Your task to perform on an android device: Open calendar and show me the third week of next month Image 0: 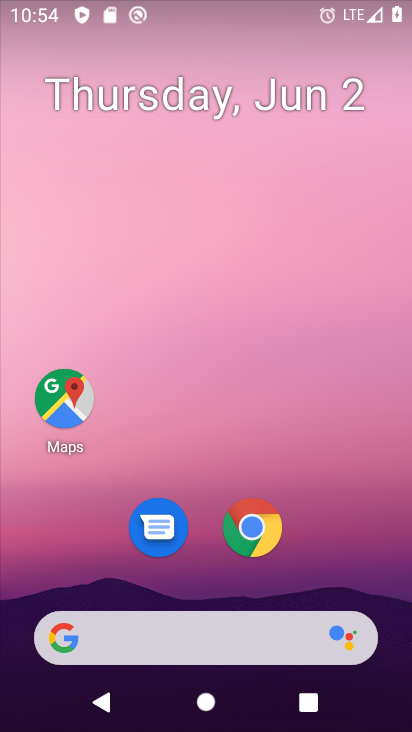
Step 0: drag from (196, 624) to (179, 44)
Your task to perform on an android device: Open calendar and show me the third week of next month Image 1: 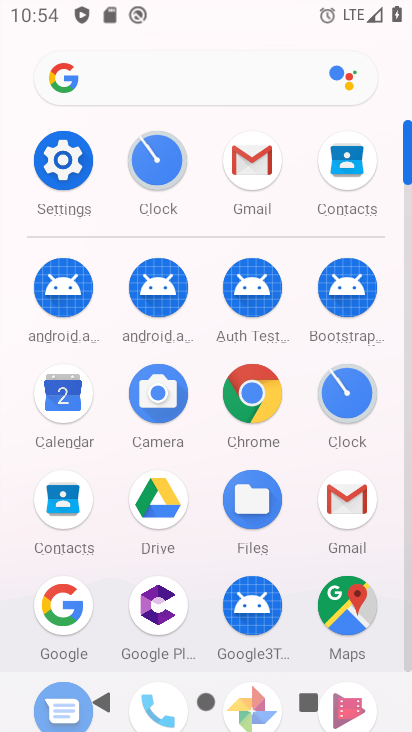
Step 1: click (54, 401)
Your task to perform on an android device: Open calendar and show me the third week of next month Image 2: 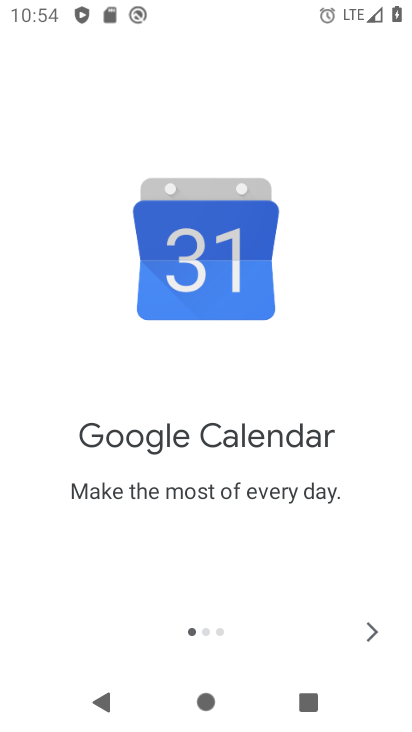
Step 2: click (376, 643)
Your task to perform on an android device: Open calendar and show me the third week of next month Image 3: 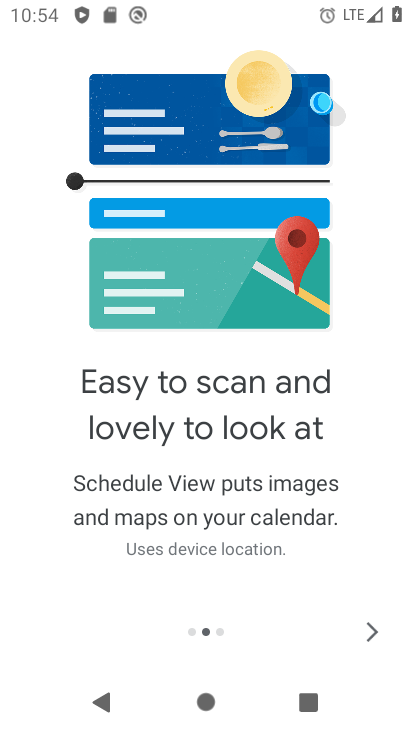
Step 3: click (376, 643)
Your task to perform on an android device: Open calendar and show me the third week of next month Image 4: 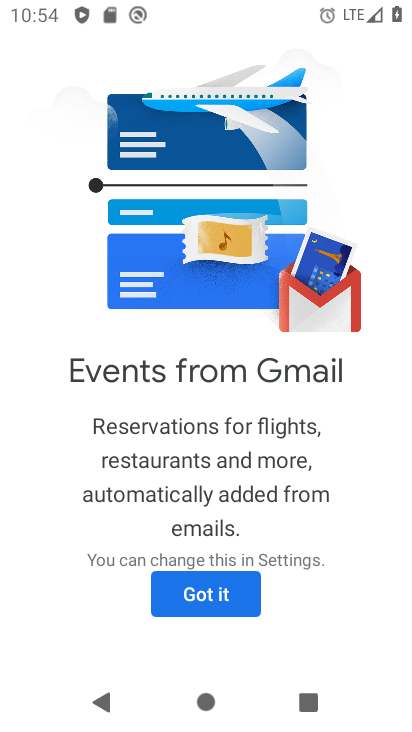
Step 4: click (215, 611)
Your task to perform on an android device: Open calendar and show me the third week of next month Image 5: 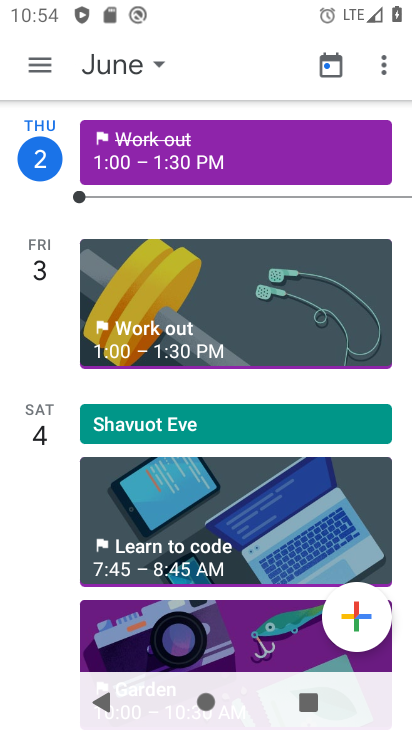
Step 5: click (44, 76)
Your task to perform on an android device: Open calendar and show me the third week of next month Image 6: 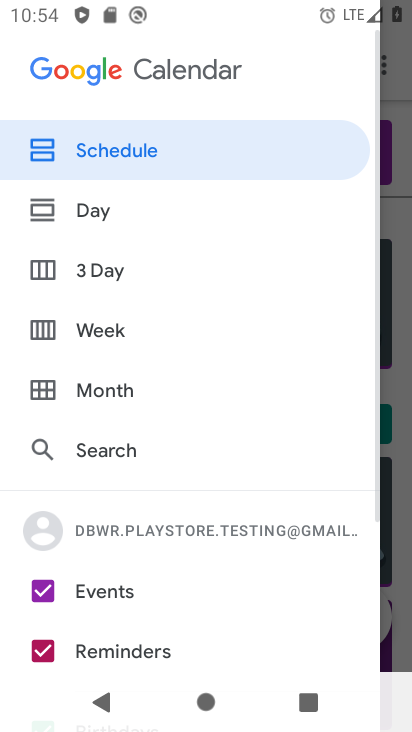
Step 6: click (129, 391)
Your task to perform on an android device: Open calendar and show me the third week of next month Image 7: 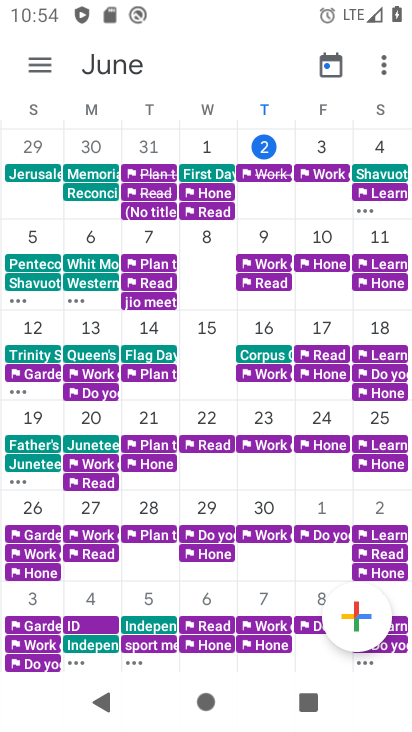
Step 7: task complete